Your task to perform on an android device: Open my contact list Image 0: 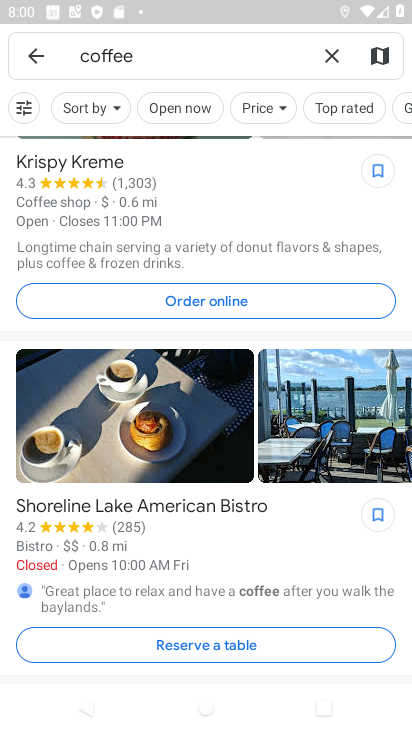
Step 0: press home button
Your task to perform on an android device: Open my contact list Image 1: 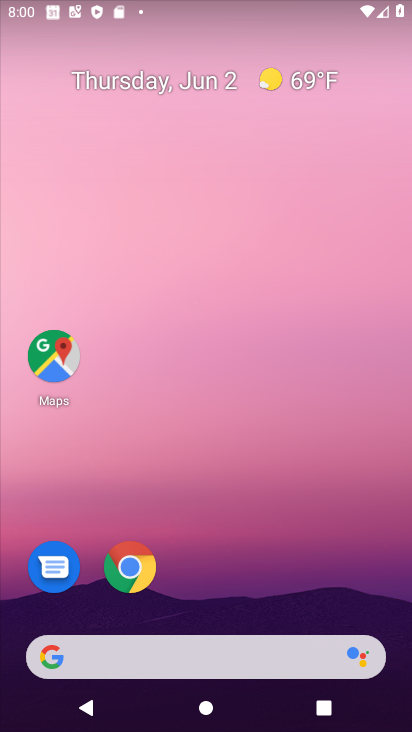
Step 1: drag from (367, 606) to (312, 131)
Your task to perform on an android device: Open my contact list Image 2: 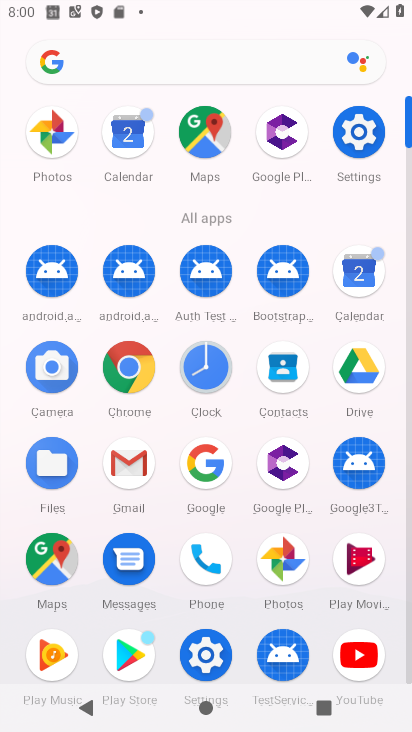
Step 2: click (411, 665)
Your task to perform on an android device: Open my contact list Image 3: 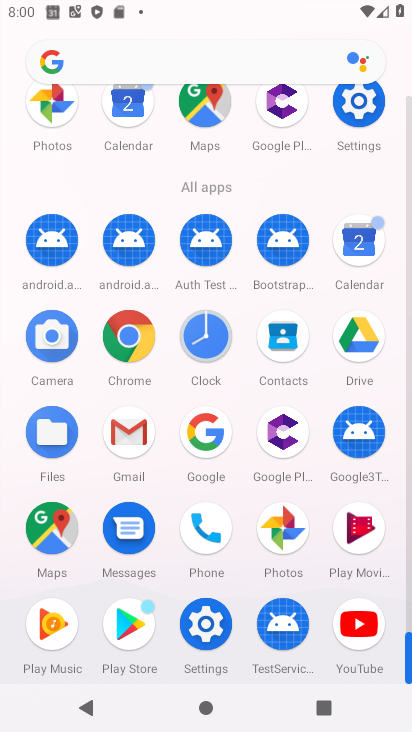
Step 3: click (282, 341)
Your task to perform on an android device: Open my contact list Image 4: 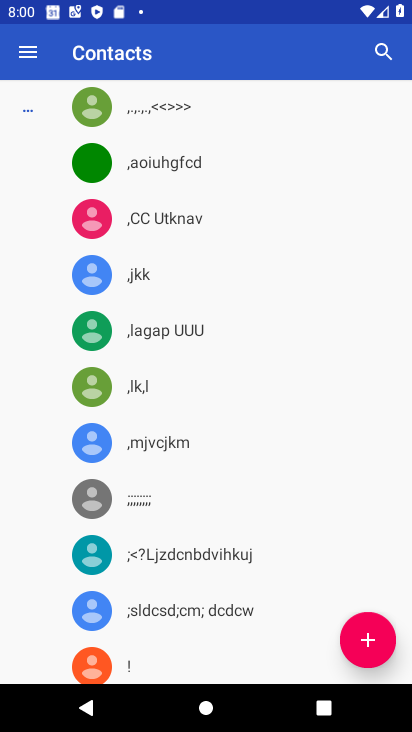
Step 4: task complete